Your task to perform on an android device: toggle airplane mode Image 0: 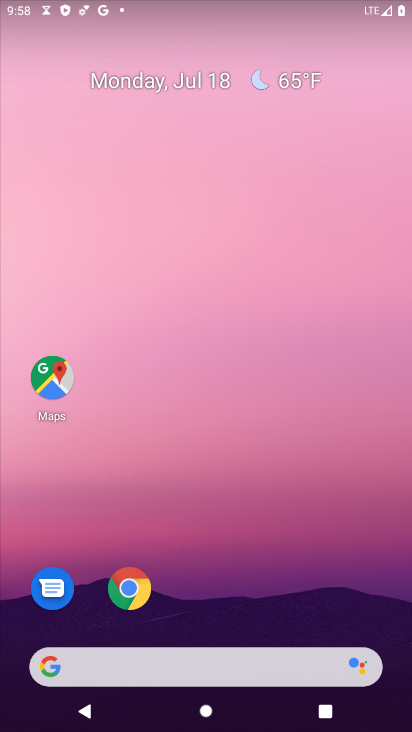
Step 0: drag from (208, 661) to (213, 99)
Your task to perform on an android device: toggle airplane mode Image 1: 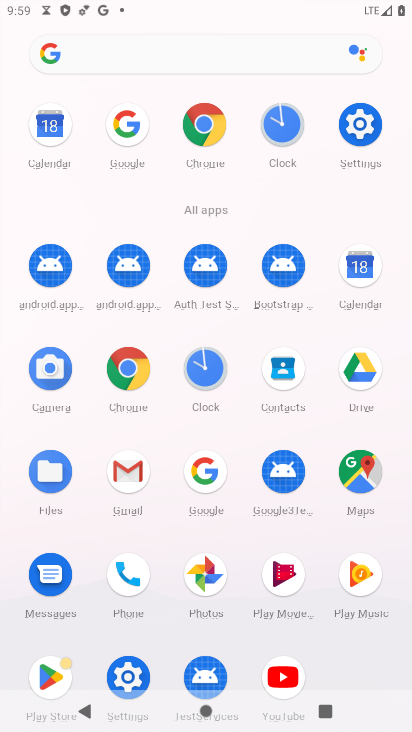
Step 1: click (360, 124)
Your task to perform on an android device: toggle airplane mode Image 2: 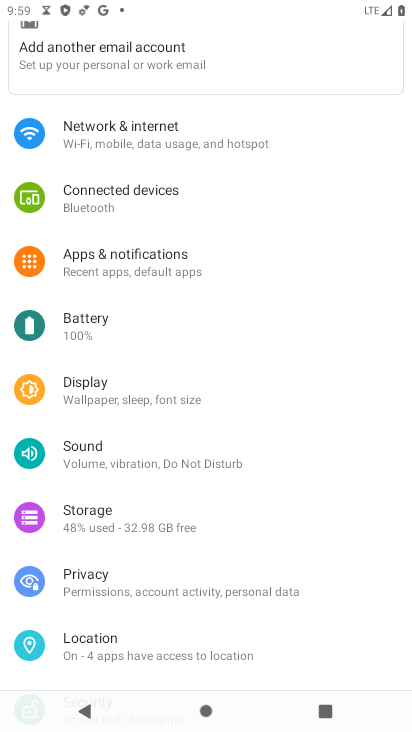
Step 2: click (147, 143)
Your task to perform on an android device: toggle airplane mode Image 3: 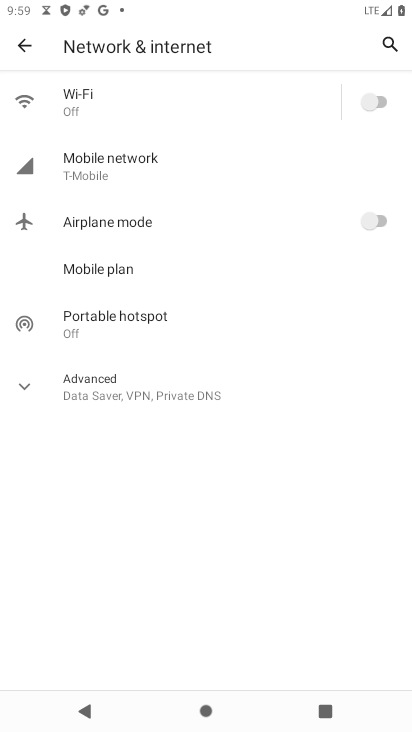
Step 3: click (370, 224)
Your task to perform on an android device: toggle airplane mode Image 4: 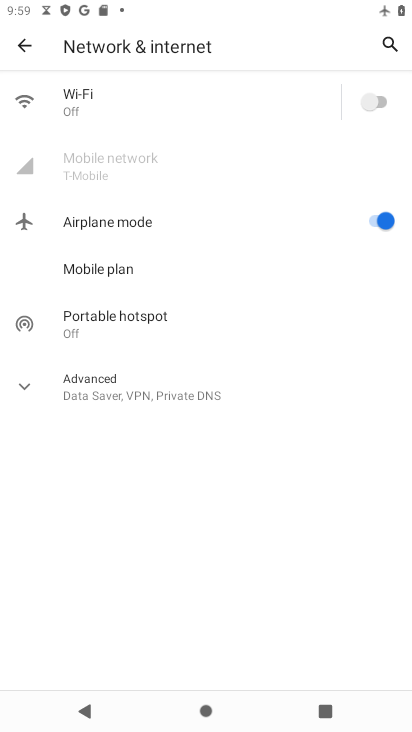
Step 4: task complete